Your task to perform on an android device: change the clock style Image 0: 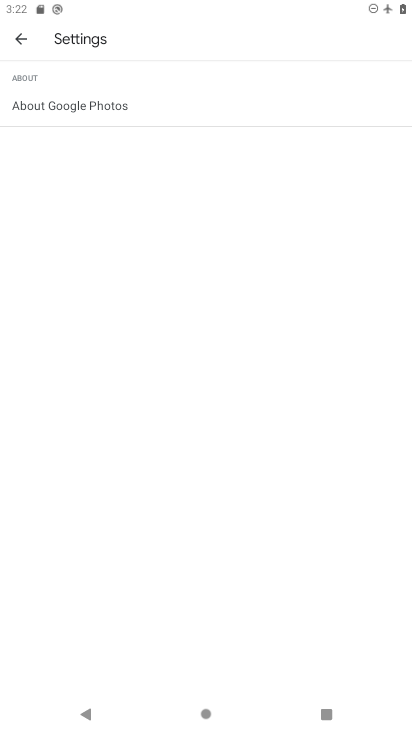
Step 0: press home button
Your task to perform on an android device: change the clock style Image 1: 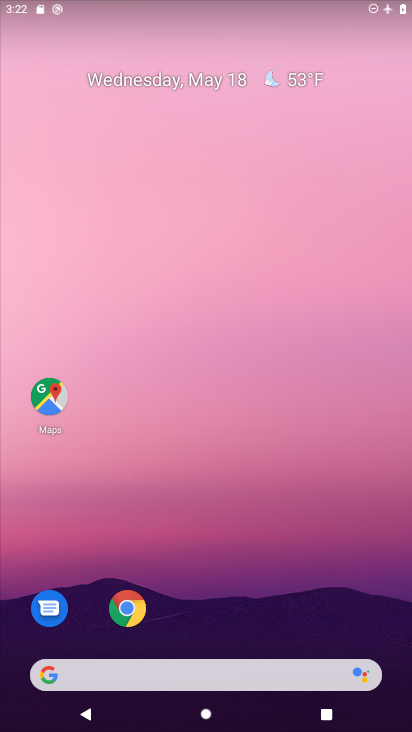
Step 1: drag from (203, 654) to (220, 214)
Your task to perform on an android device: change the clock style Image 2: 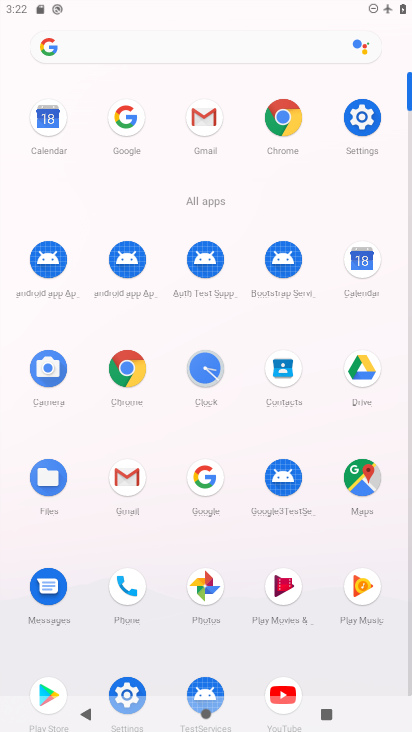
Step 2: click (187, 386)
Your task to perform on an android device: change the clock style Image 3: 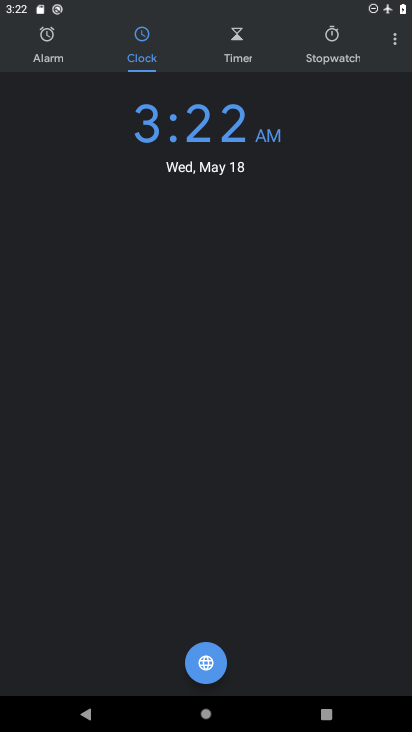
Step 3: click (392, 44)
Your task to perform on an android device: change the clock style Image 4: 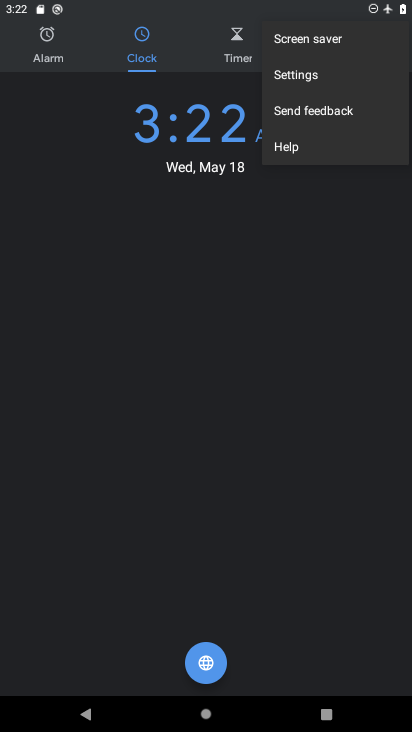
Step 4: click (292, 81)
Your task to perform on an android device: change the clock style Image 5: 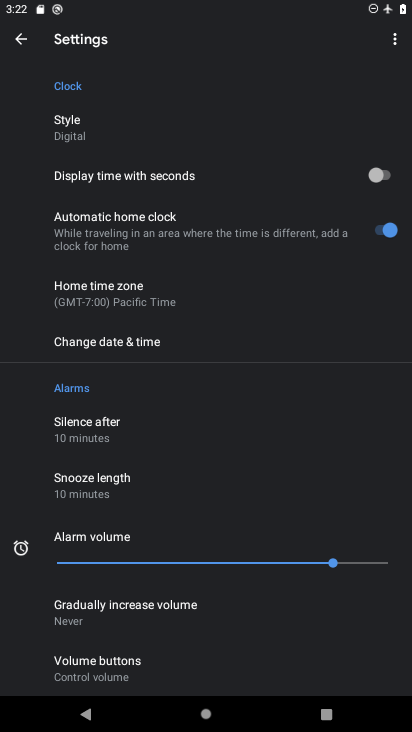
Step 5: click (70, 131)
Your task to perform on an android device: change the clock style Image 6: 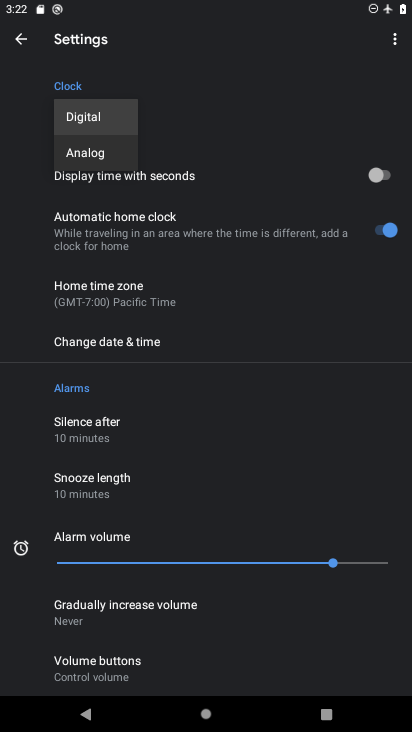
Step 6: click (84, 159)
Your task to perform on an android device: change the clock style Image 7: 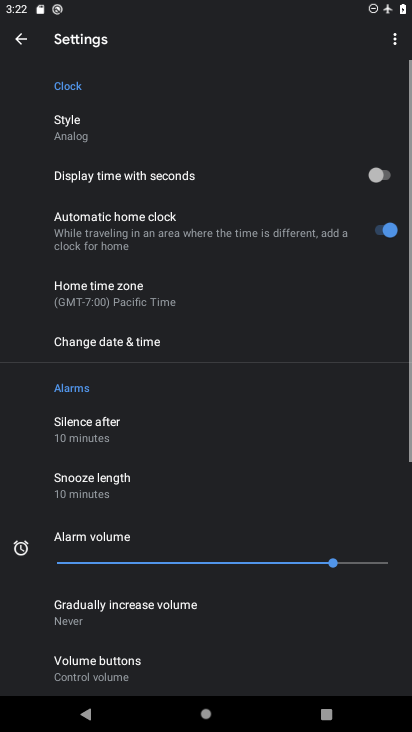
Step 7: task complete